Your task to perform on an android device: What is the news today? Image 0: 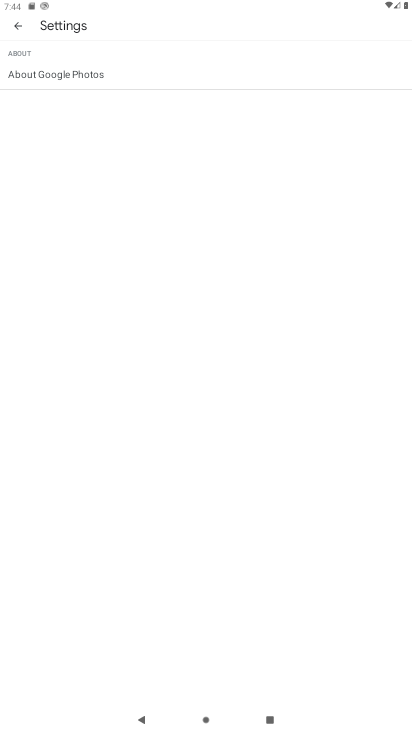
Step 0: press home button
Your task to perform on an android device: What is the news today? Image 1: 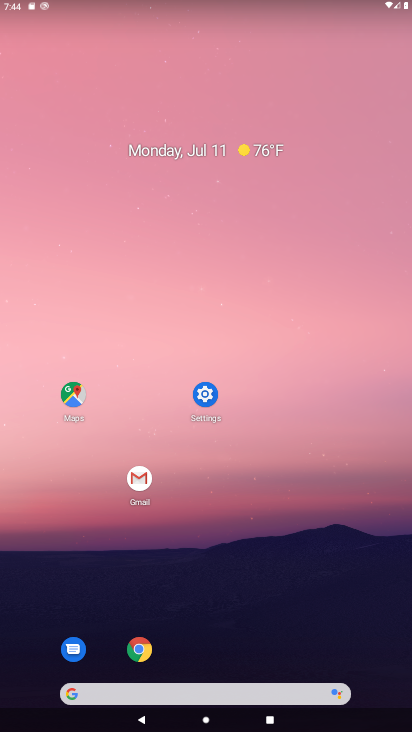
Step 1: task complete